Your task to perform on an android device: visit the assistant section in the google photos Image 0: 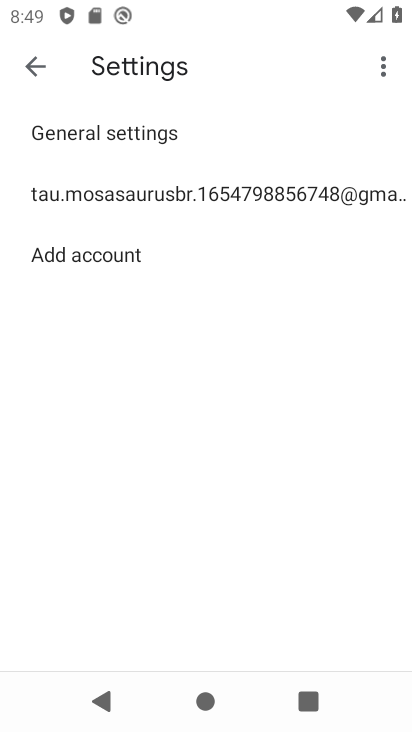
Step 0: press home button
Your task to perform on an android device: visit the assistant section in the google photos Image 1: 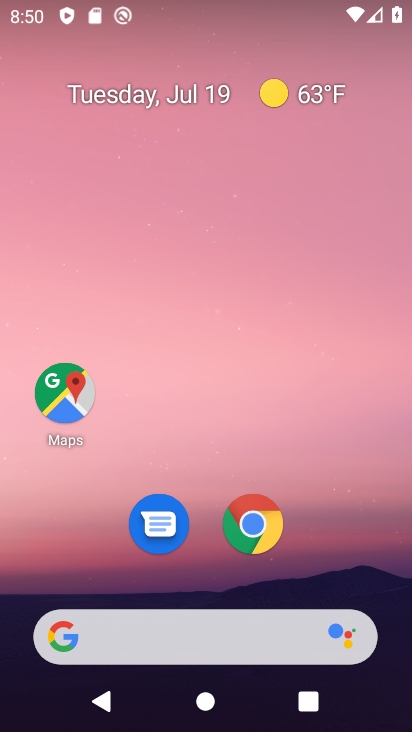
Step 1: drag from (187, 648) to (342, 113)
Your task to perform on an android device: visit the assistant section in the google photos Image 2: 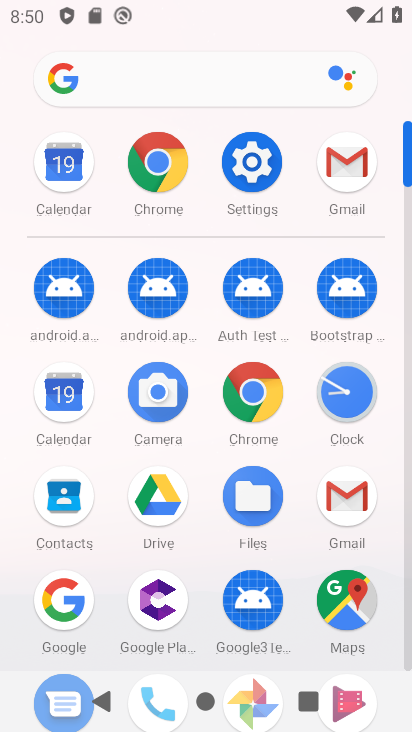
Step 2: drag from (270, 423) to (377, 142)
Your task to perform on an android device: visit the assistant section in the google photos Image 3: 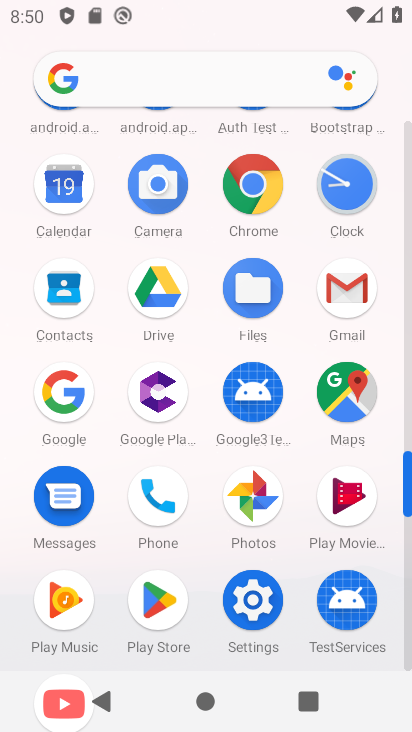
Step 3: click (260, 504)
Your task to perform on an android device: visit the assistant section in the google photos Image 4: 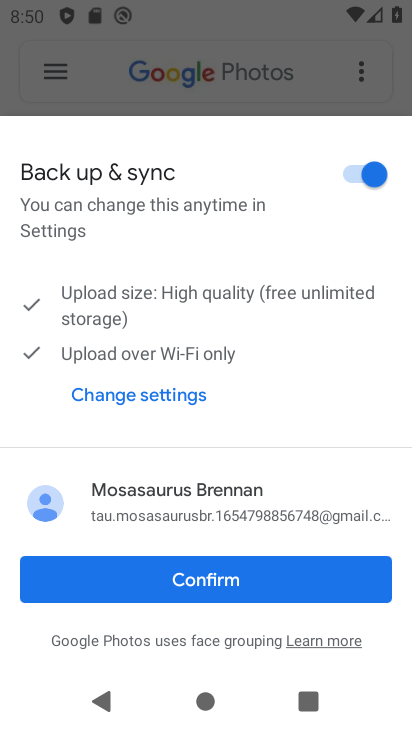
Step 4: click (241, 581)
Your task to perform on an android device: visit the assistant section in the google photos Image 5: 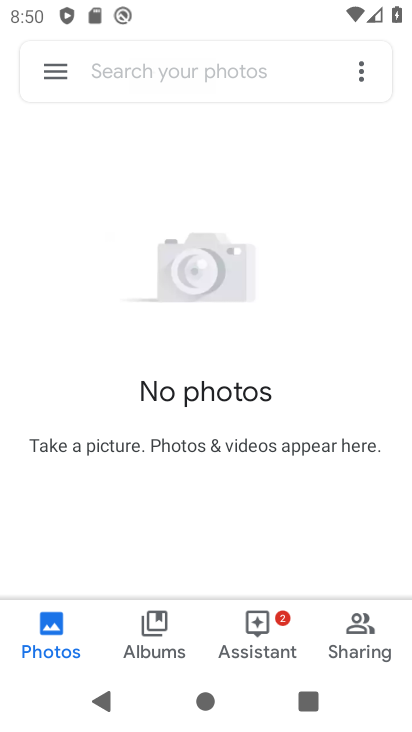
Step 5: click (256, 643)
Your task to perform on an android device: visit the assistant section in the google photos Image 6: 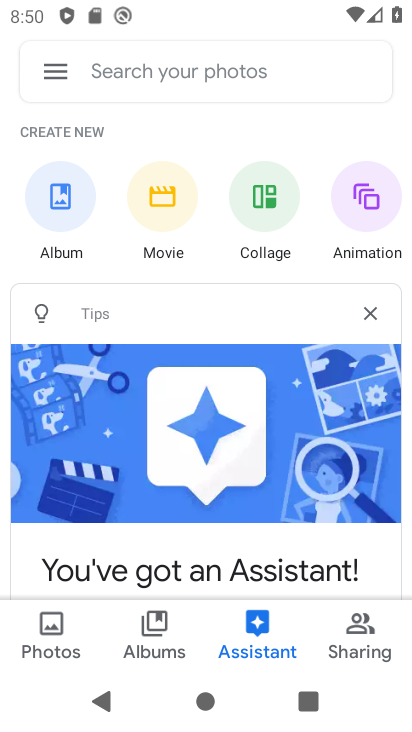
Step 6: task complete